Your task to perform on an android device: turn on improve location accuracy Image 0: 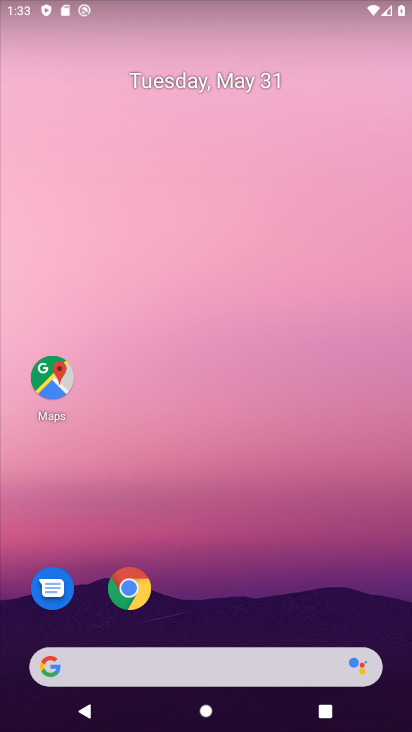
Step 0: drag from (244, 618) to (194, 80)
Your task to perform on an android device: turn on improve location accuracy Image 1: 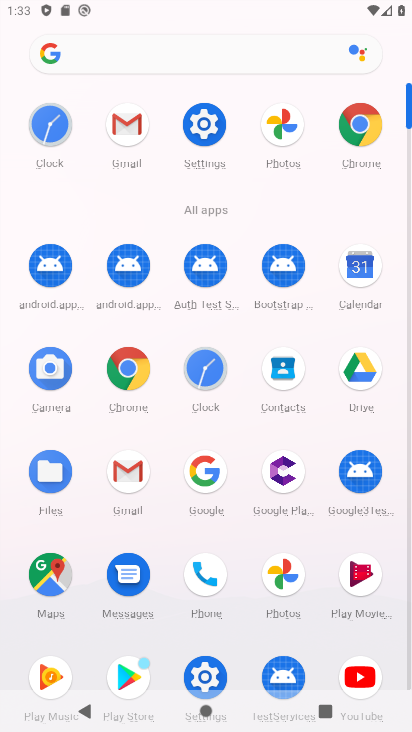
Step 1: click (207, 130)
Your task to perform on an android device: turn on improve location accuracy Image 2: 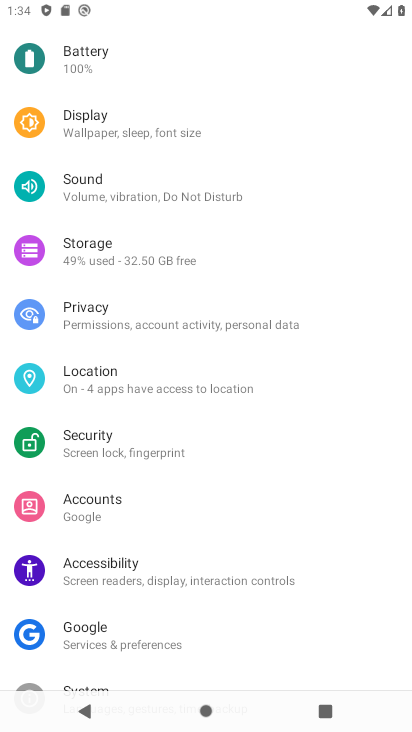
Step 2: click (172, 392)
Your task to perform on an android device: turn on improve location accuracy Image 3: 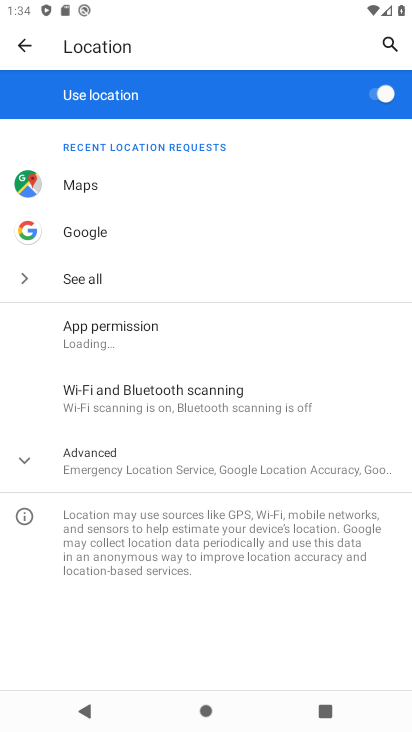
Step 3: click (203, 457)
Your task to perform on an android device: turn on improve location accuracy Image 4: 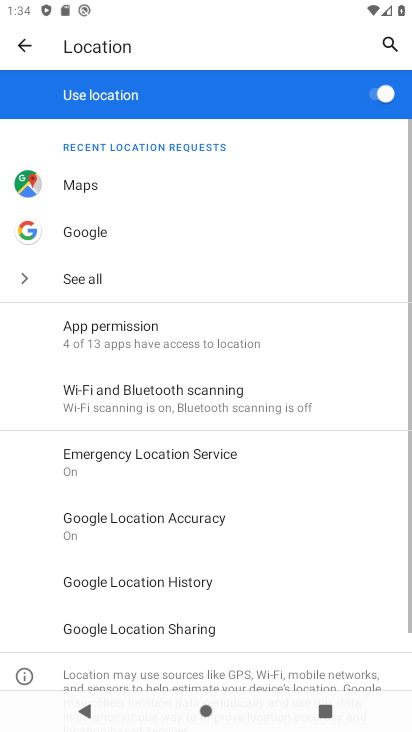
Step 4: click (218, 516)
Your task to perform on an android device: turn on improve location accuracy Image 5: 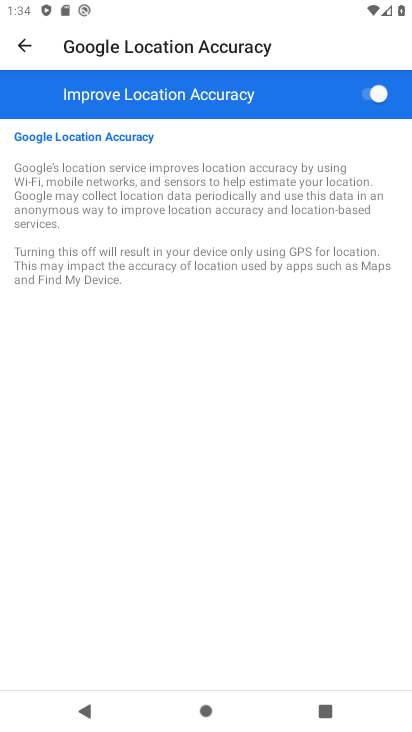
Step 5: task complete